Your task to perform on an android device: toggle javascript in the chrome app Image 0: 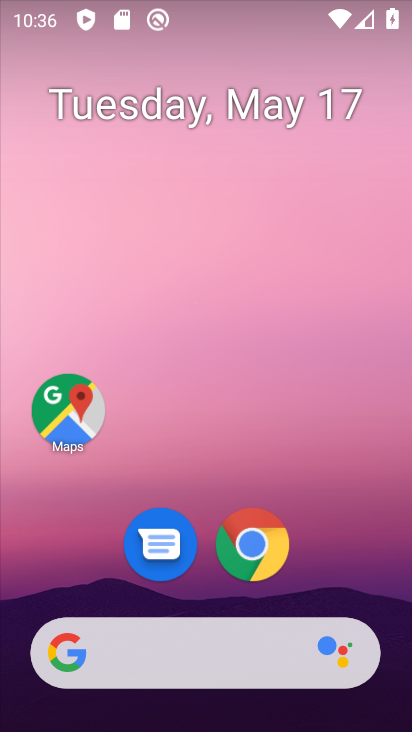
Step 0: drag from (336, 651) to (297, 56)
Your task to perform on an android device: toggle javascript in the chrome app Image 1: 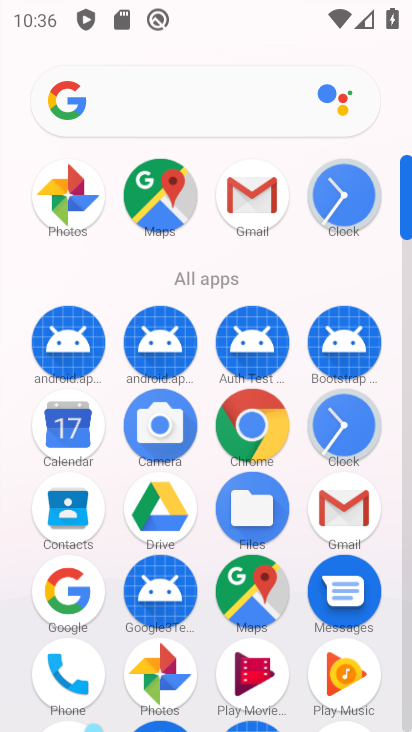
Step 1: click (279, 473)
Your task to perform on an android device: toggle javascript in the chrome app Image 2: 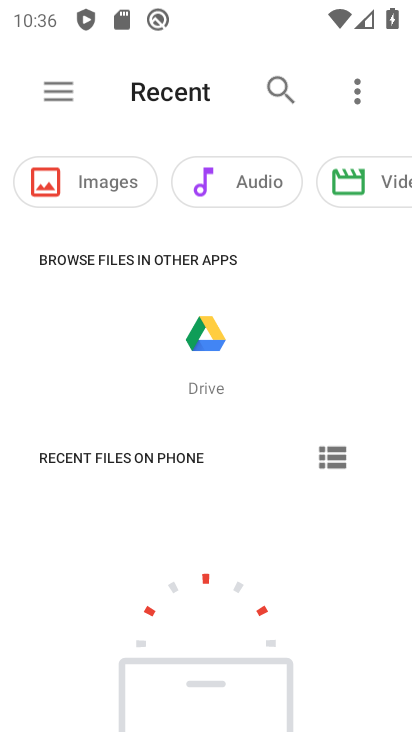
Step 2: press home button
Your task to perform on an android device: toggle javascript in the chrome app Image 3: 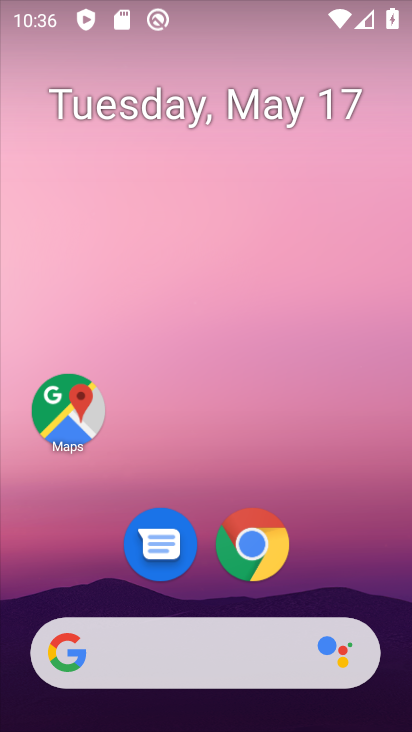
Step 3: drag from (226, 647) to (176, 65)
Your task to perform on an android device: toggle javascript in the chrome app Image 4: 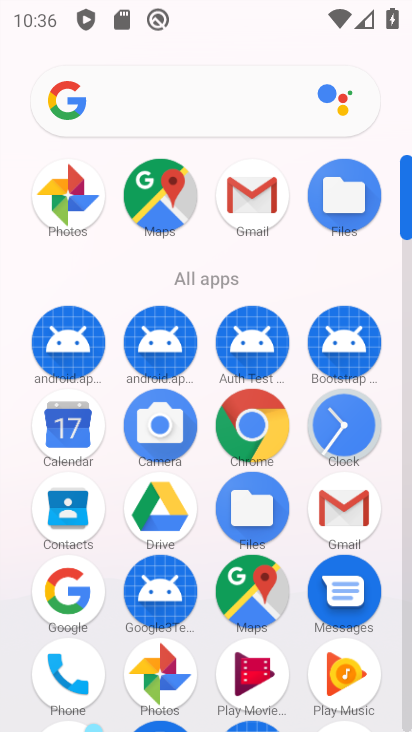
Step 4: click (257, 427)
Your task to perform on an android device: toggle javascript in the chrome app Image 5: 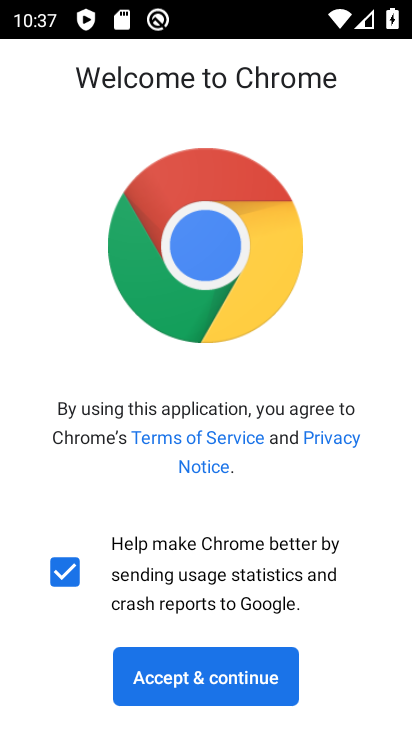
Step 5: click (231, 670)
Your task to perform on an android device: toggle javascript in the chrome app Image 6: 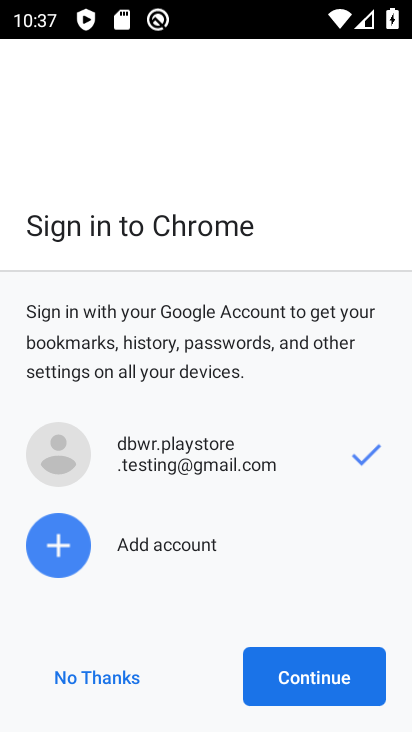
Step 6: click (124, 680)
Your task to perform on an android device: toggle javascript in the chrome app Image 7: 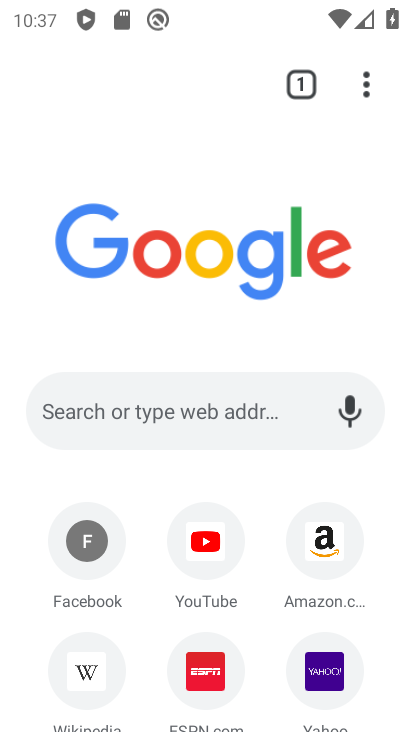
Step 7: task complete